Your task to perform on an android device: Set the phone to "Do not disturb". Image 0: 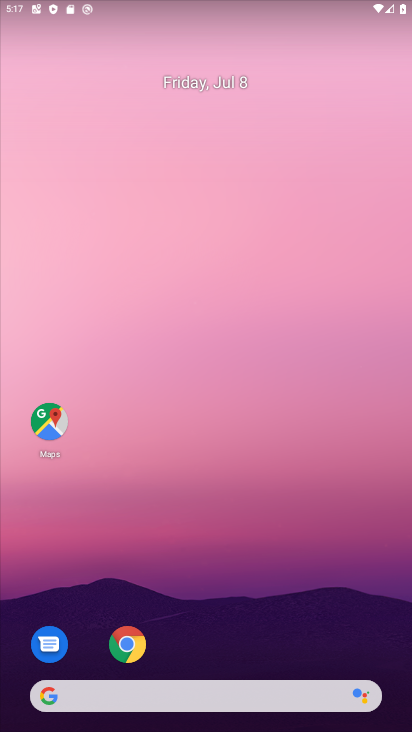
Step 0: drag from (192, 331) to (204, 151)
Your task to perform on an android device: Set the phone to "Do not disturb". Image 1: 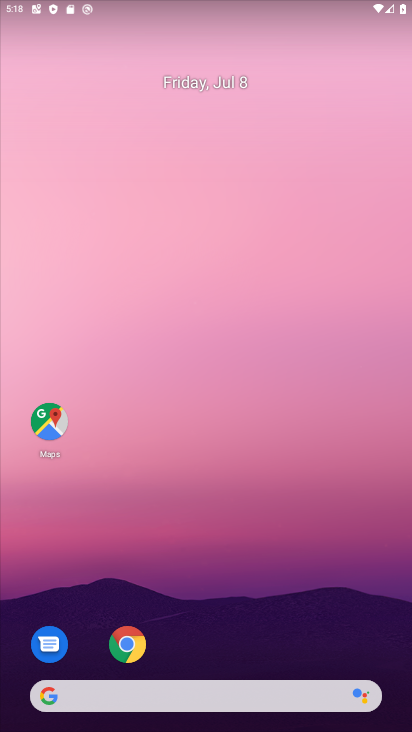
Step 1: drag from (283, 560) to (219, 0)
Your task to perform on an android device: Set the phone to "Do not disturb". Image 2: 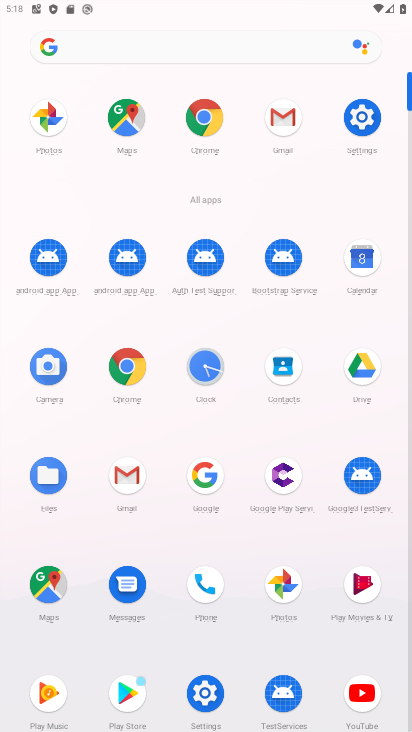
Step 2: click (212, 695)
Your task to perform on an android device: Set the phone to "Do not disturb". Image 3: 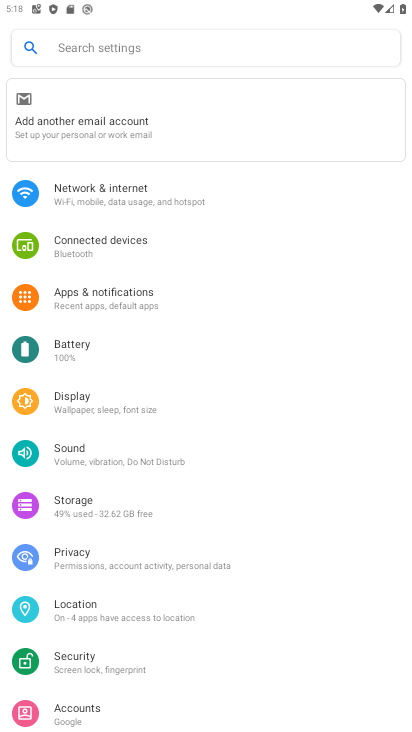
Step 3: drag from (114, 665) to (52, 299)
Your task to perform on an android device: Set the phone to "Do not disturb". Image 4: 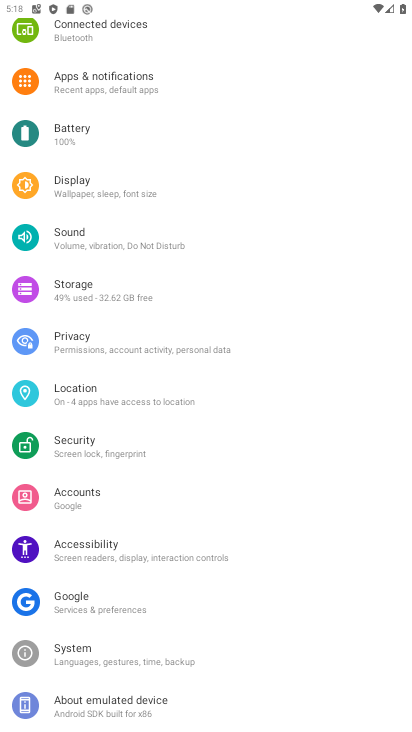
Step 4: drag from (113, 183) to (174, 452)
Your task to perform on an android device: Set the phone to "Do not disturb". Image 5: 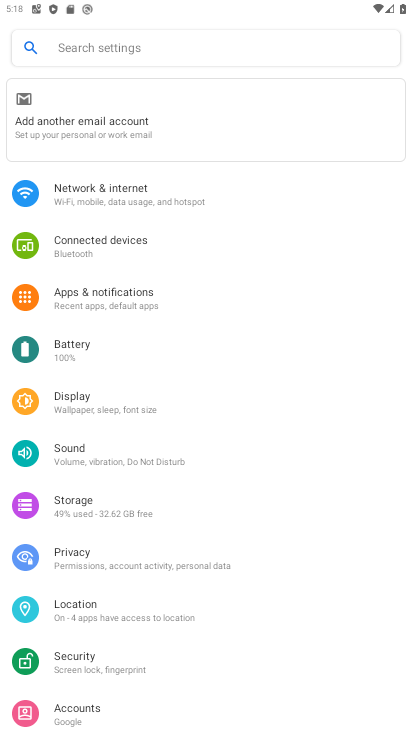
Step 5: click (169, 40)
Your task to perform on an android device: Set the phone to "Do not disturb". Image 6: 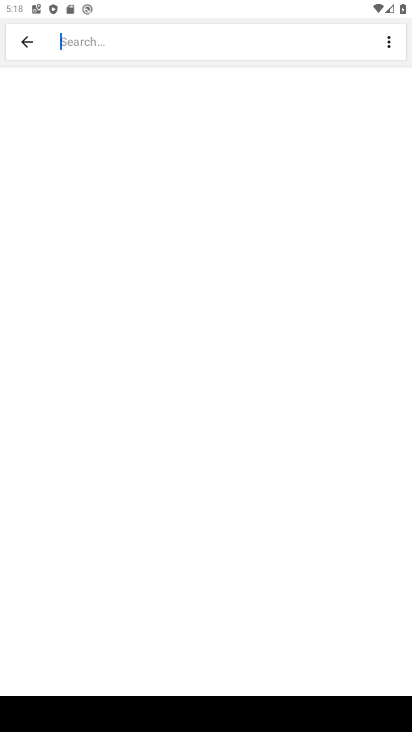
Step 6: type "do not"
Your task to perform on an android device: Set the phone to "Do not disturb". Image 7: 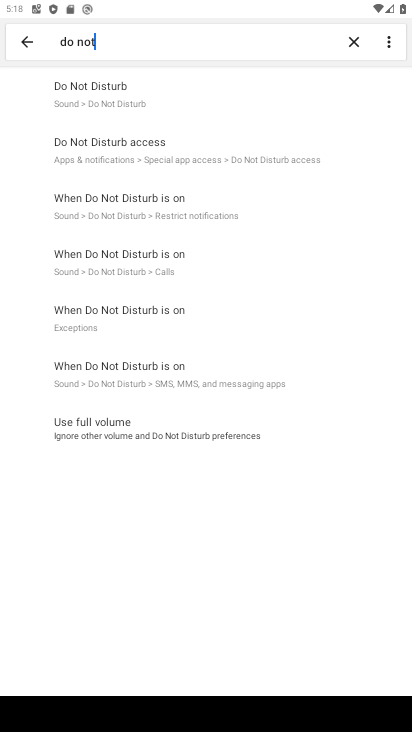
Step 7: click (127, 86)
Your task to perform on an android device: Set the phone to "Do not disturb". Image 8: 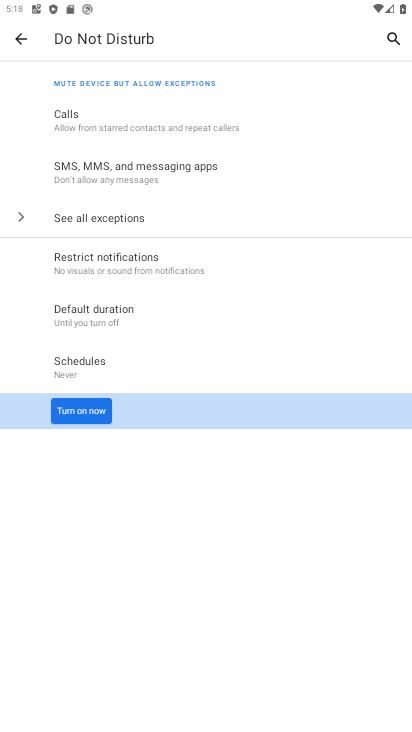
Step 8: click (84, 416)
Your task to perform on an android device: Set the phone to "Do not disturb". Image 9: 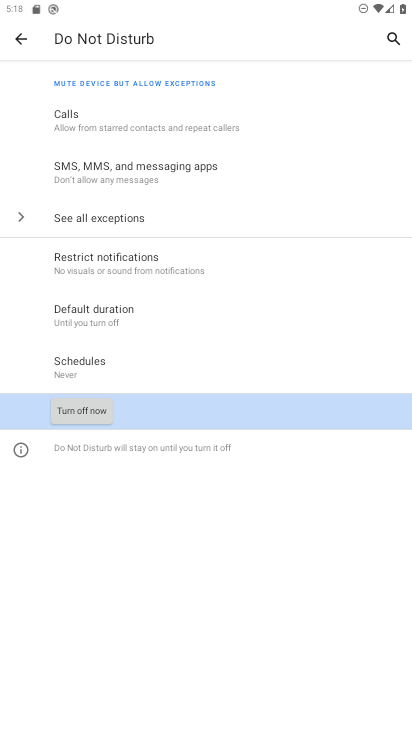
Step 9: task complete